Your task to perform on an android device: Open notification settings Image 0: 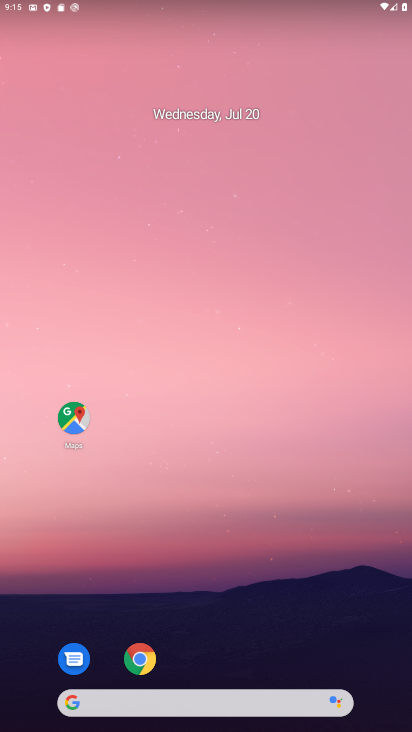
Step 0: drag from (273, 579) to (213, 230)
Your task to perform on an android device: Open notification settings Image 1: 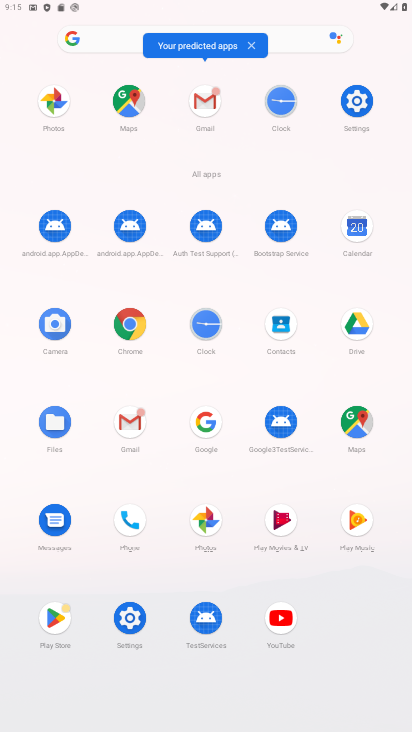
Step 1: click (353, 99)
Your task to perform on an android device: Open notification settings Image 2: 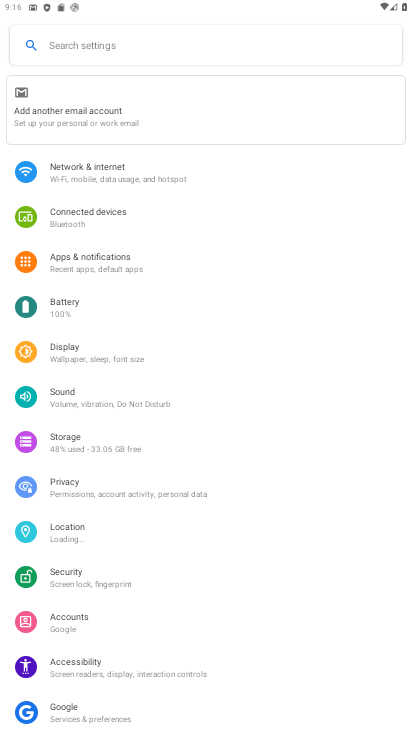
Step 2: click (86, 260)
Your task to perform on an android device: Open notification settings Image 3: 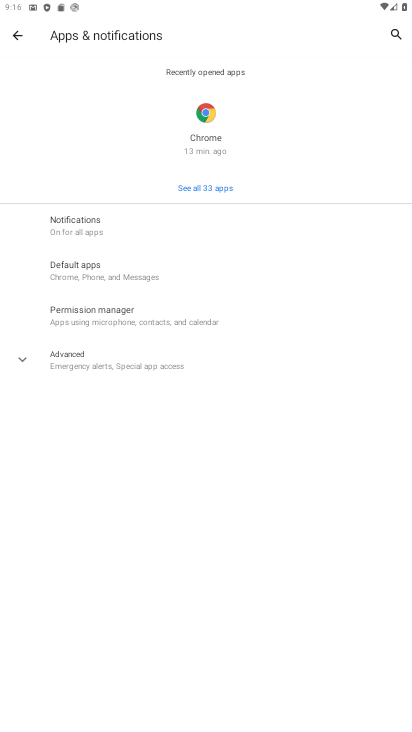
Step 3: task complete